Your task to perform on an android device: toggle pop-ups in chrome Image 0: 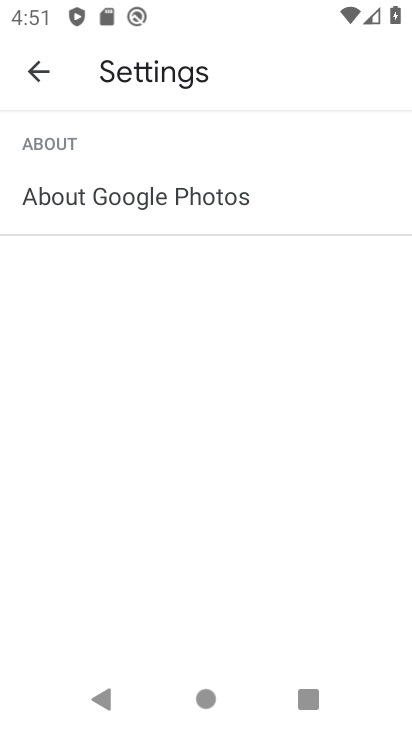
Step 0: click (32, 77)
Your task to perform on an android device: toggle pop-ups in chrome Image 1: 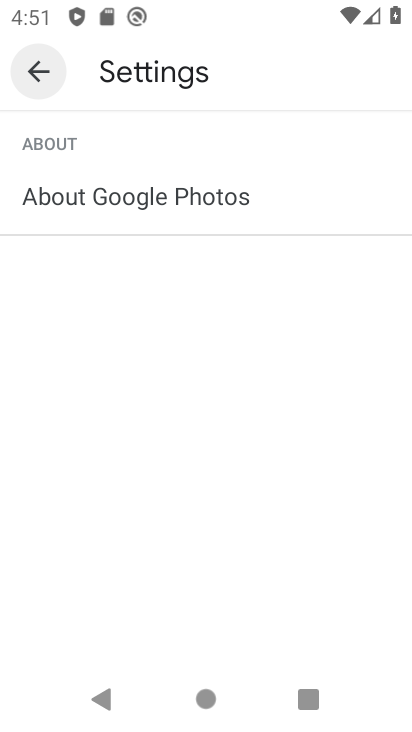
Step 1: click (31, 77)
Your task to perform on an android device: toggle pop-ups in chrome Image 2: 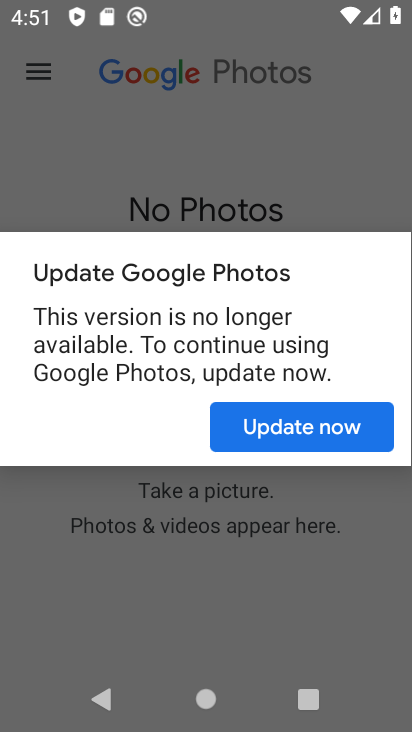
Step 2: press home button
Your task to perform on an android device: toggle pop-ups in chrome Image 3: 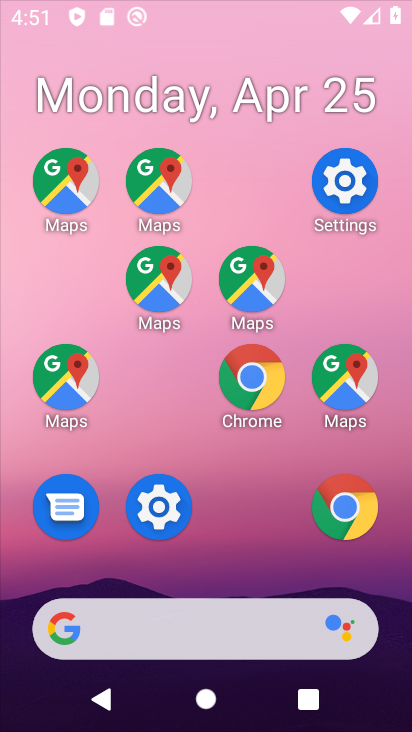
Step 3: click (286, 431)
Your task to perform on an android device: toggle pop-ups in chrome Image 4: 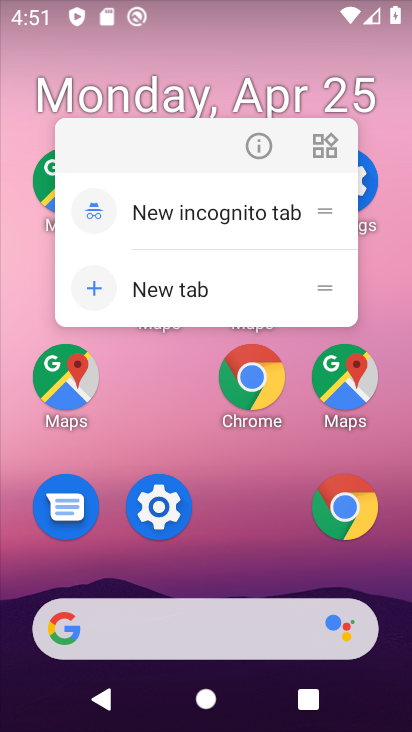
Step 4: drag from (266, 687) to (154, 213)
Your task to perform on an android device: toggle pop-ups in chrome Image 5: 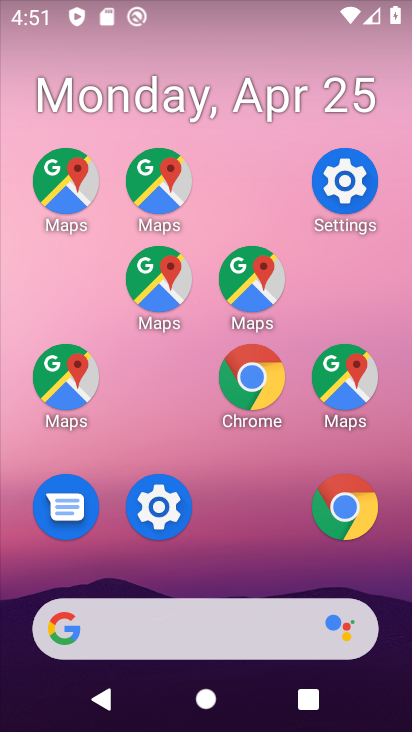
Step 5: click (247, 380)
Your task to perform on an android device: toggle pop-ups in chrome Image 6: 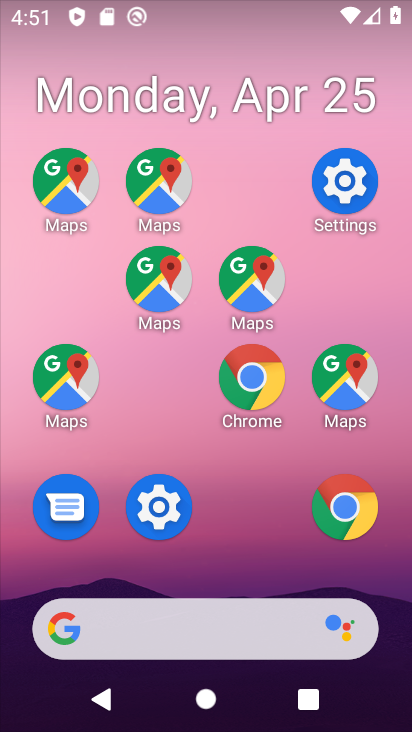
Step 6: click (247, 380)
Your task to perform on an android device: toggle pop-ups in chrome Image 7: 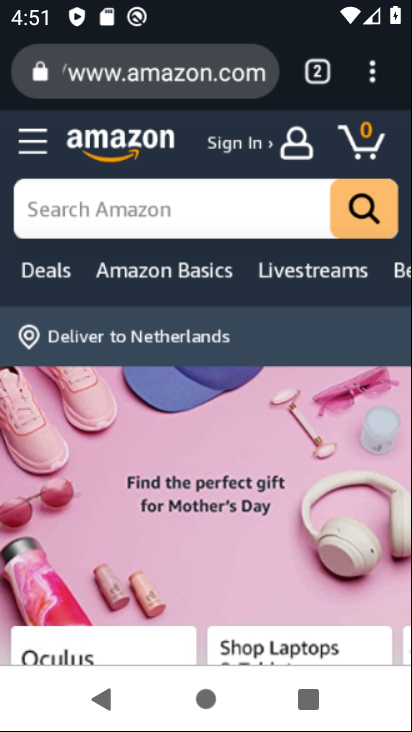
Step 7: click (265, 370)
Your task to perform on an android device: toggle pop-ups in chrome Image 8: 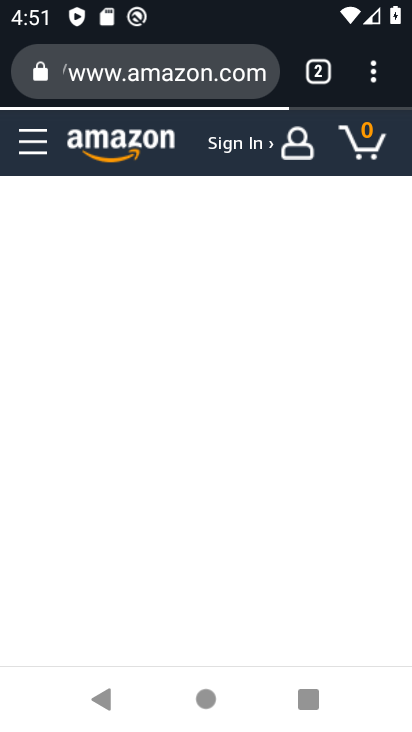
Step 8: drag from (368, 63) to (110, 517)
Your task to perform on an android device: toggle pop-ups in chrome Image 9: 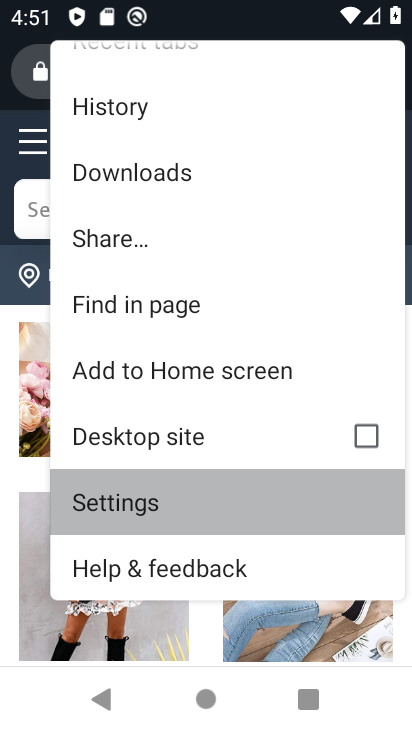
Step 9: click (111, 517)
Your task to perform on an android device: toggle pop-ups in chrome Image 10: 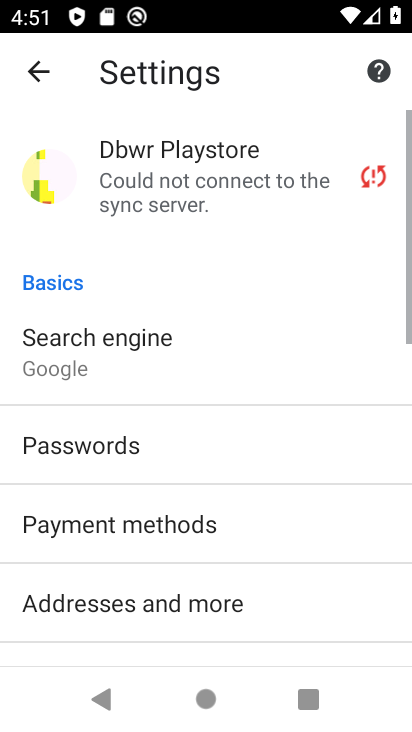
Step 10: drag from (142, 508) to (136, 307)
Your task to perform on an android device: toggle pop-ups in chrome Image 11: 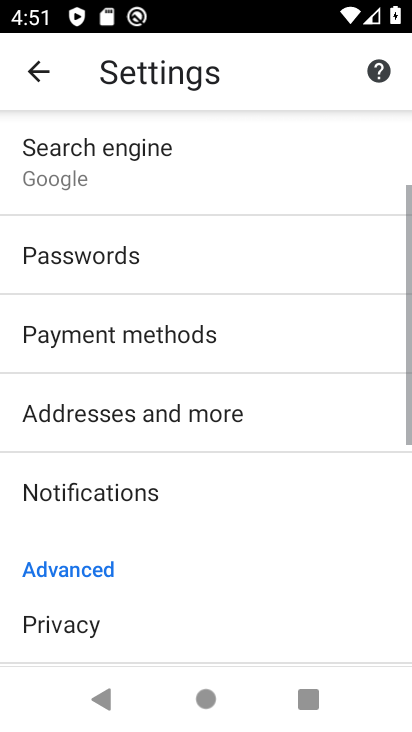
Step 11: drag from (144, 539) to (178, 120)
Your task to perform on an android device: toggle pop-ups in chrome Image 12: 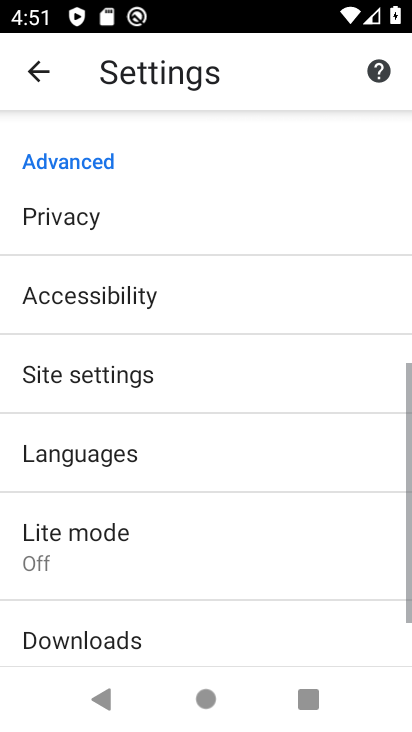
Step 12: drag from (190, 526) to (141, 147)
Your task to perform on an android device: toggle pop-ups in chrome Image 13: 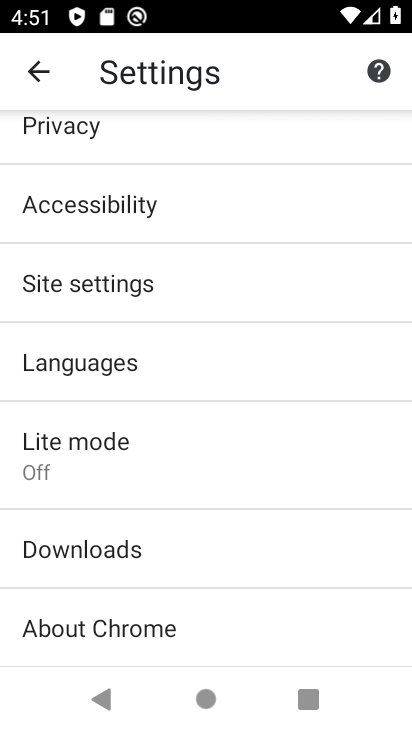
Step 13: click (74, 283)
Your task to perform on an android device: toggle pop-ups in chrome Image 14: 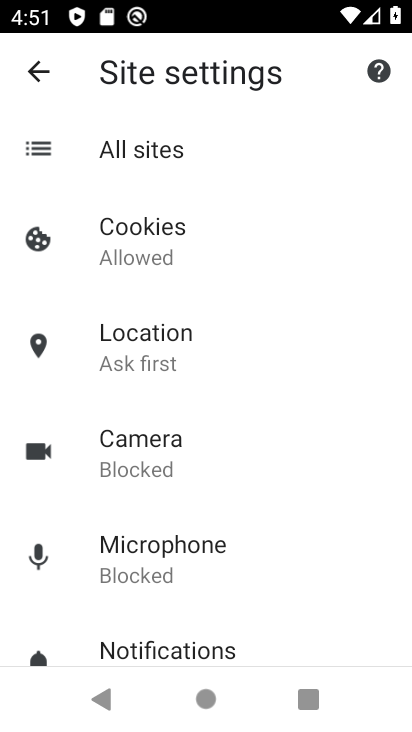
Step 14: drag from (226, 356) to (324, 103)
Your task to perform on an android device: toggle pop-ups in chrome Image 15: 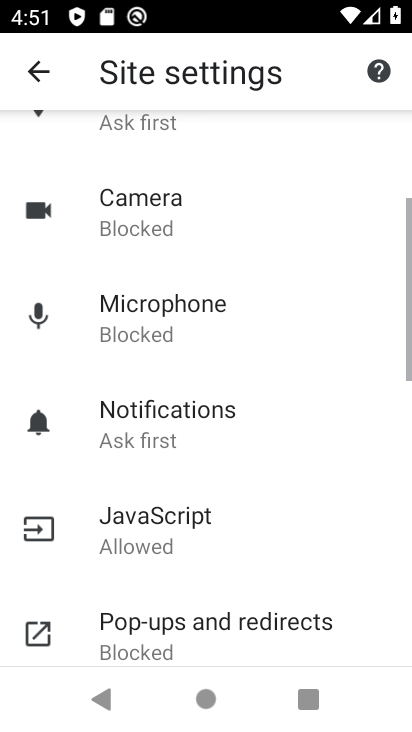
Step 15: drag from (163, 472) to (91, 136)
Your task to perform on an android device: toggle pop-ups in chrome Image 16: 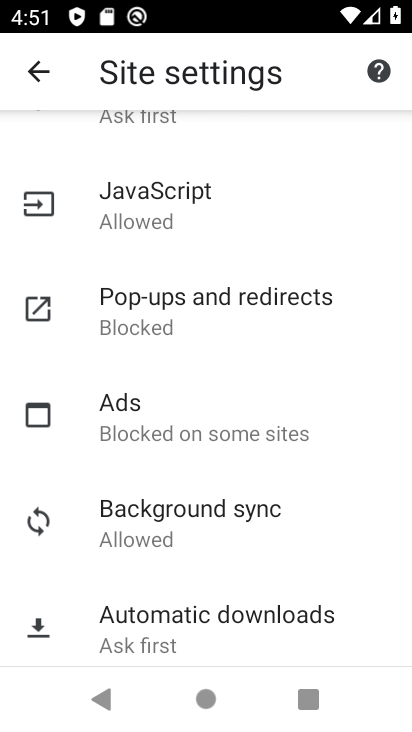
Step 16: click (153, 309)
Your task to perform on an android device: toggle pop-ups in chrome Image 17: 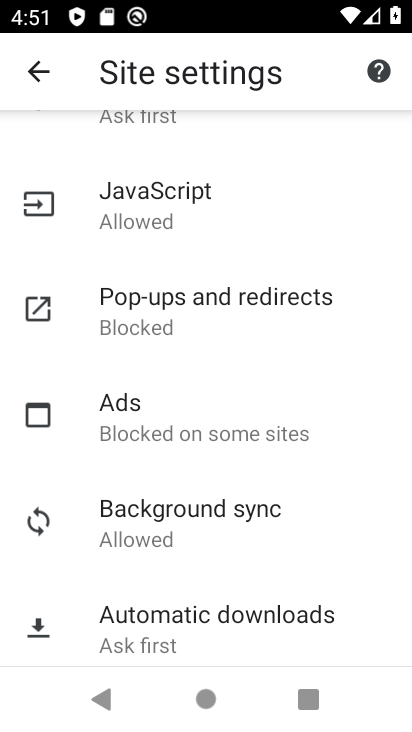
Step 17: click (132, 323)
Your task to perform on an android device: toggle pop-ups in chrome Image 18: 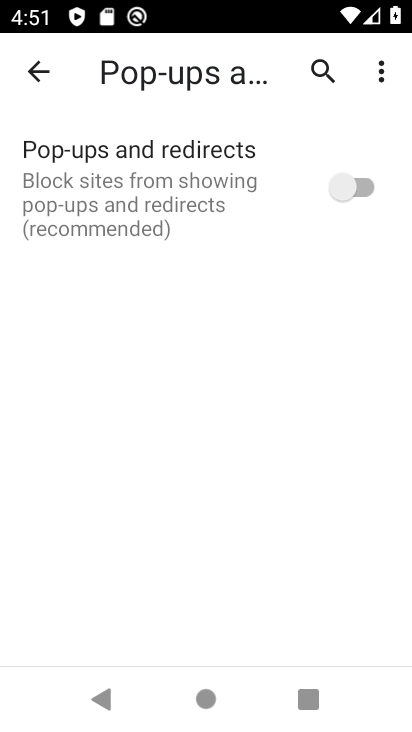
Step 18: click (347, 190)
Your task to perform on an android device: toggle pop-ups in chrome Image 19: 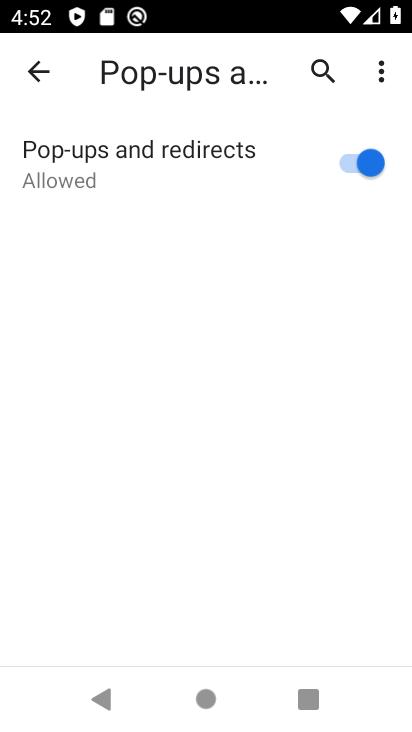
Step 19: task complete